Your task to perform on an android device: Go to calendar. Show me events next week Image 0: 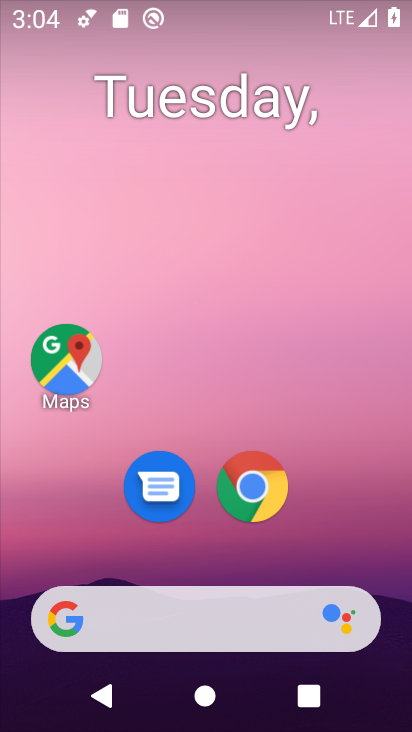
Step 0: drag from (213, 539) to (226, 65)
Your task to perform on an android device: Go to calendar. Show me events next week Image 1: 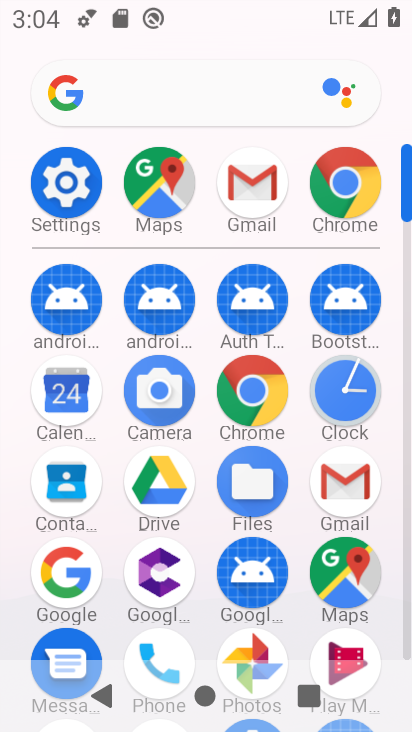
Step 1: click (65, 399)
Your task to perform on an android device: Go to calendar. Show me events next week Image 2: 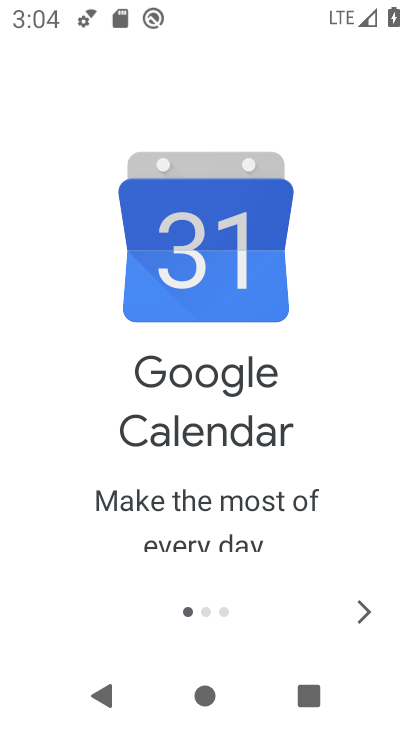
Step 2: click (367, 607)
Your task to perform on an android device: Go to calendar. Show me events next week Image 3: 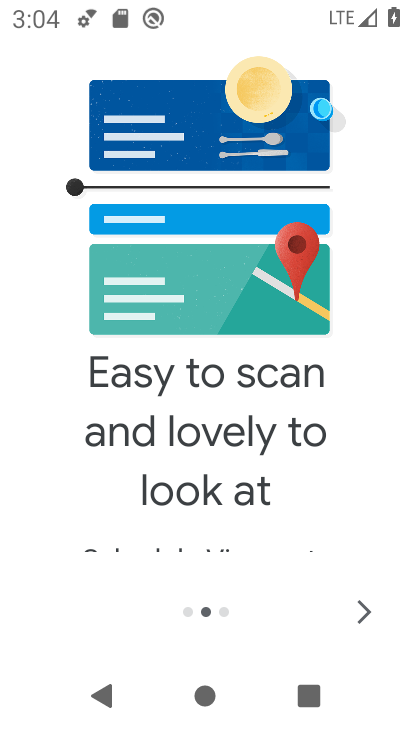
Step 3: click (367, 607)
Your task to perform on an android device: Go to calendar. Show me events next week Image 4: 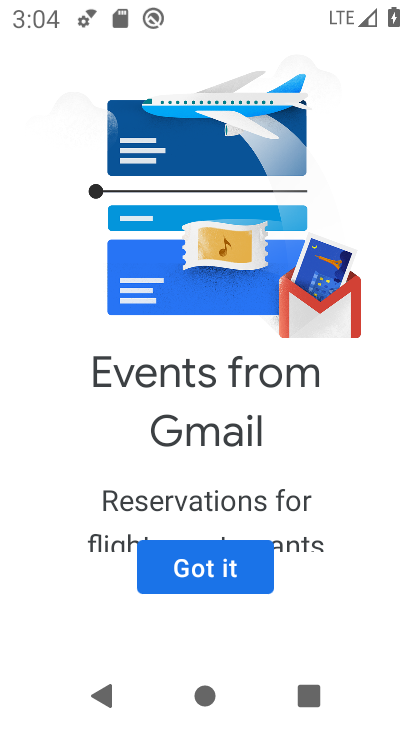
Step 4: click (367, 607)
Your task to perform on an android device: Go to calendar. Show me events next week Image 5: 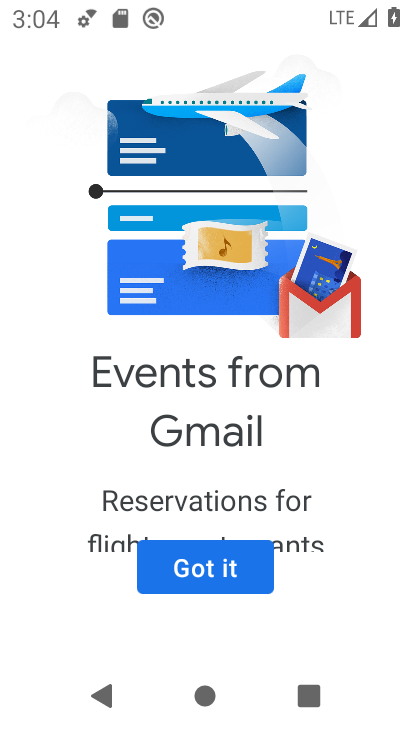
Step 5: click (213, 574)
Your task to perform on an android device: Go to calendar. Show me events next week Image 6: 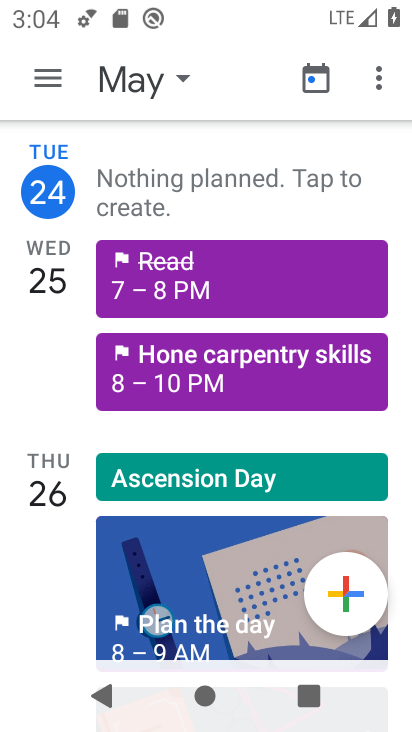
Step 6: click (180, 76)
Your task to perform on an android device: Go to calendar. Show me events next week Image 7: 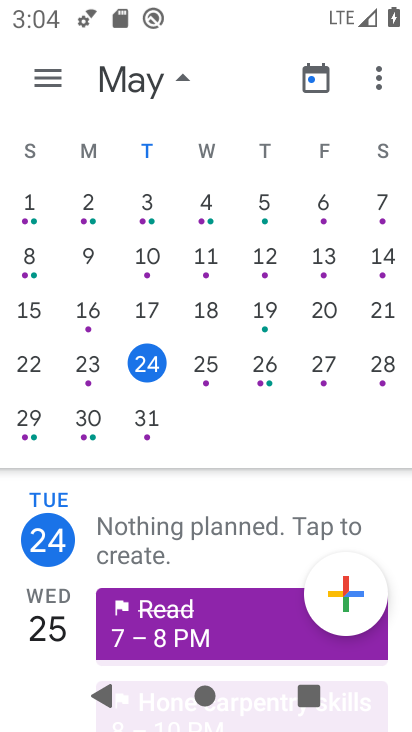
Step 7: click (30, 421)
Your task to perform on an android device: Go to calendar. Show me events next week Image 8: 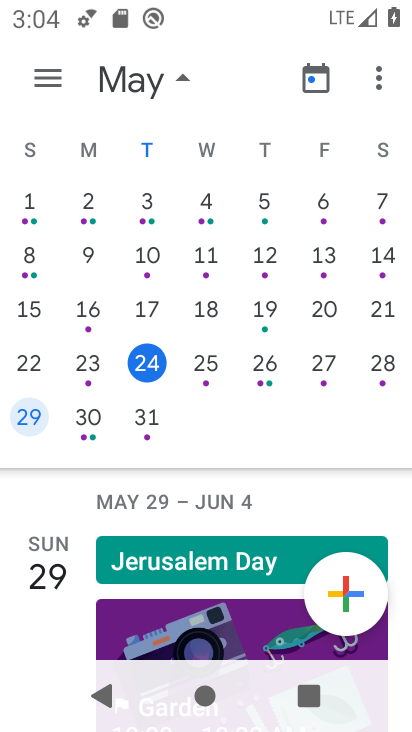
Step 8: click (181, 69)
Your task to perform on an android device: Go to calendar. Show me events next week Image 9: 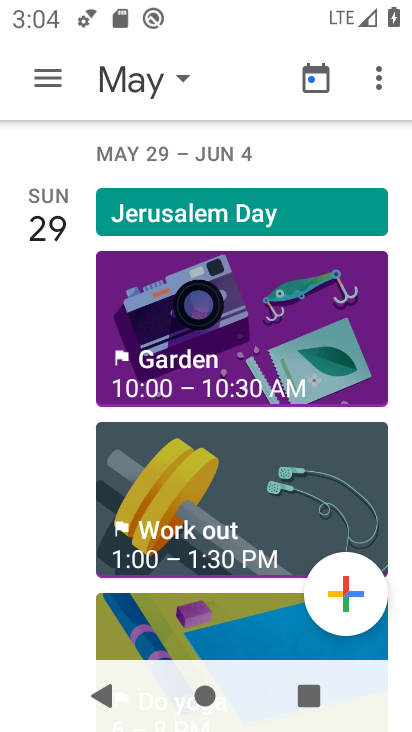
Step 9: task complete